Your task to perform on an android device: Is it going to rain tomorrow? Image 0: 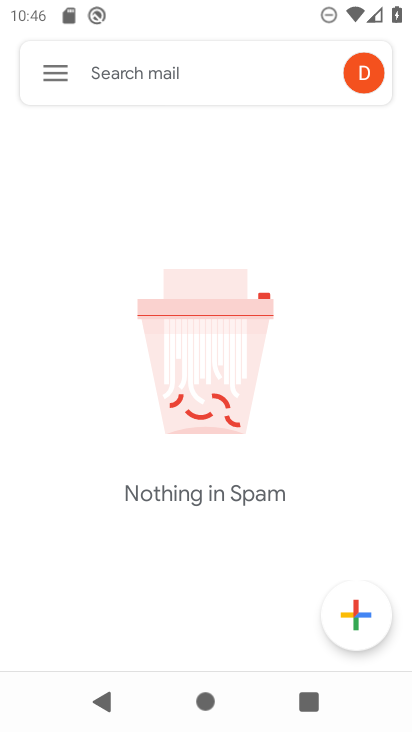
Step 0: press home button
Your task to perform on an android device: Is it going to rain tomorrow? Image 1: 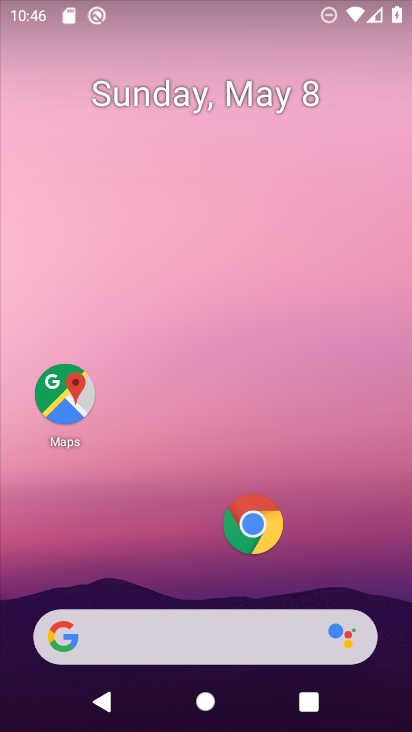
Step 1: click (134, 643)
Your task to perform on an android device: Is it going to rain tomorrow? Image 2: 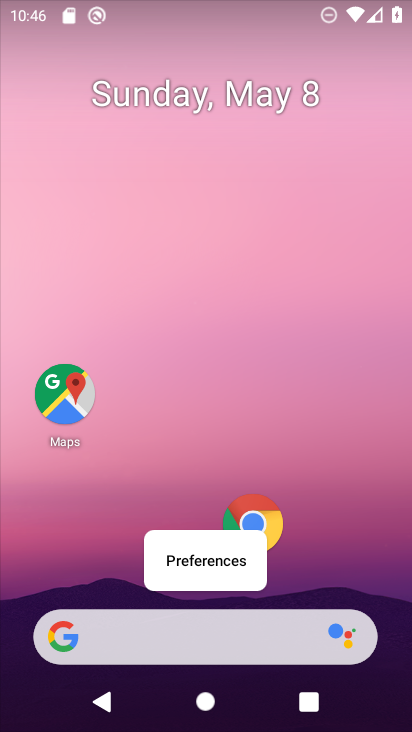
Step 2: click (134, 643)
Your task to perform on an android device: Is it going to rain tomorrow? Image 3: 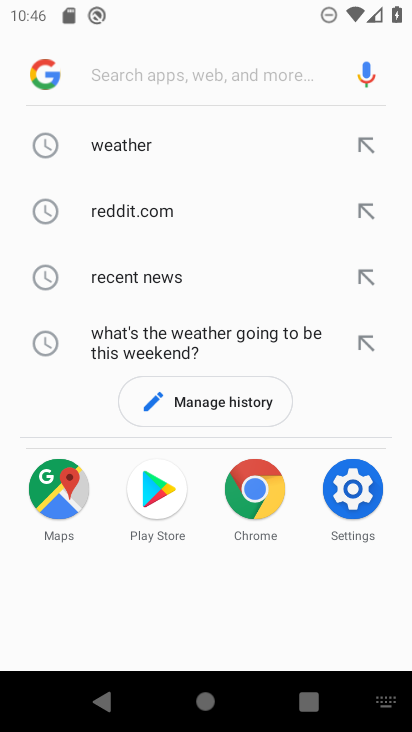
Step 3: click (129, 148)
Your task to perform on an android device: Is it going to rain tomorrow? Image 4: 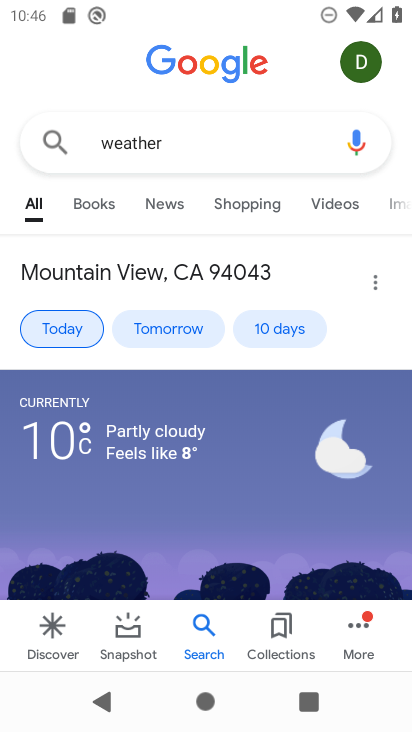
Step 4: click (65, 317)
Your task to perform on an android device: Is it going to rain tomorrow? Image 5: 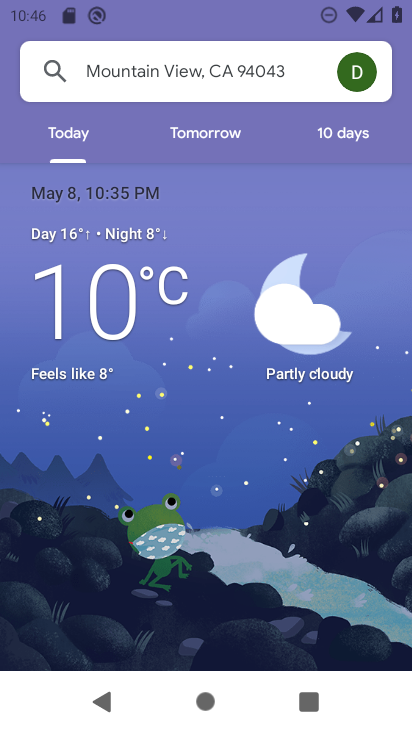
Step 5: task complete